Your task to perform on an android device: see creations saved in the google photos Image 0: 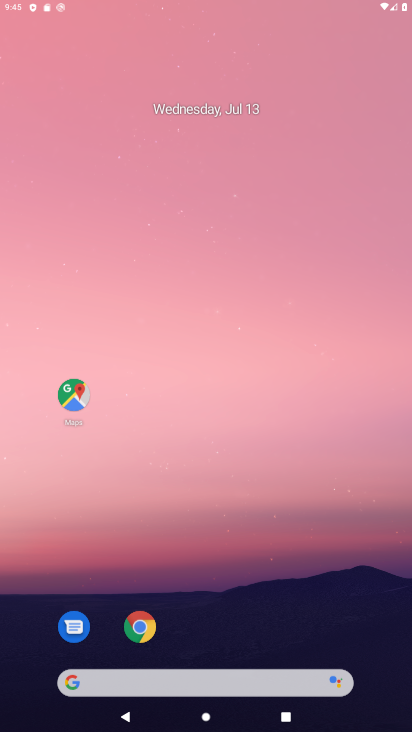
Step 0: press home button
Your task to perform on an android device: see creations saved in the google photos Image 1: 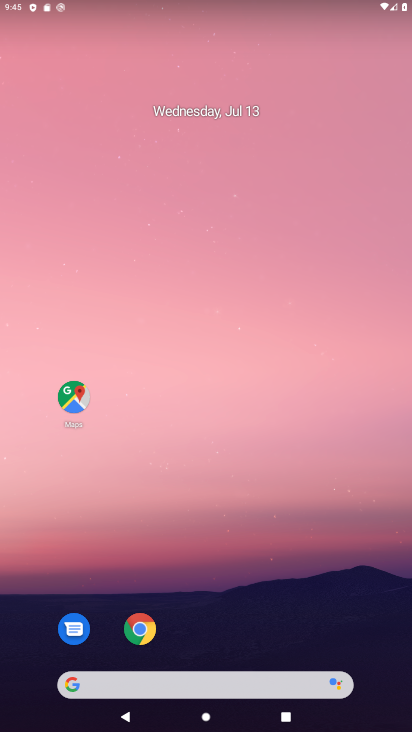
Step 1: drag from (202, 598) to (169, 18)
Your task to perform on an android device: see creations saved in the google photos Image 2: 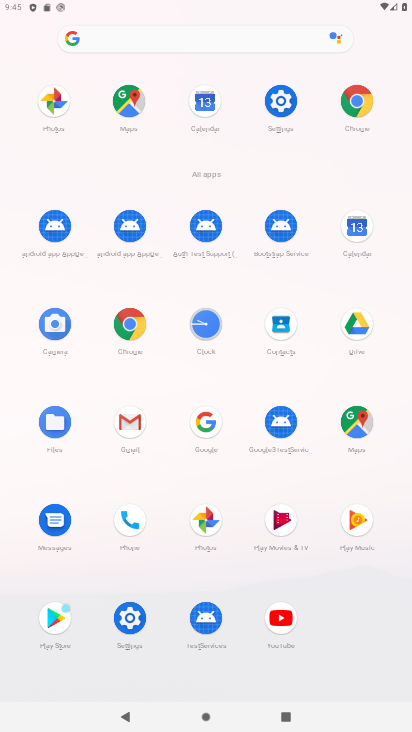
Step 2: click (205, 515)
Your task to perform on an android device: see creations saved in the google photos Image 3: 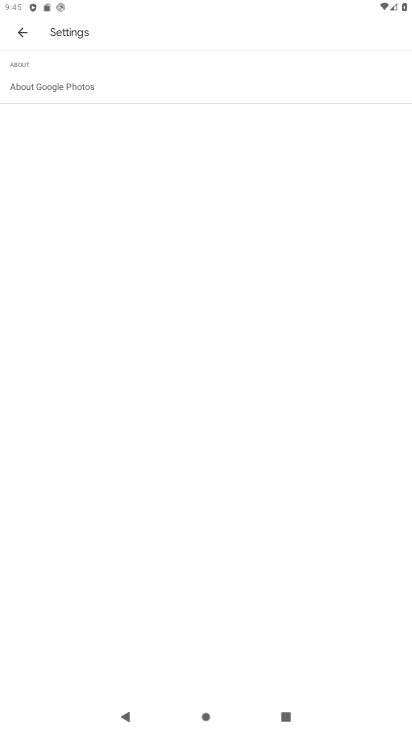
Step 3: click (22, 31)
Your task to perform on an android device: see creations saved in the google photos Image 4: 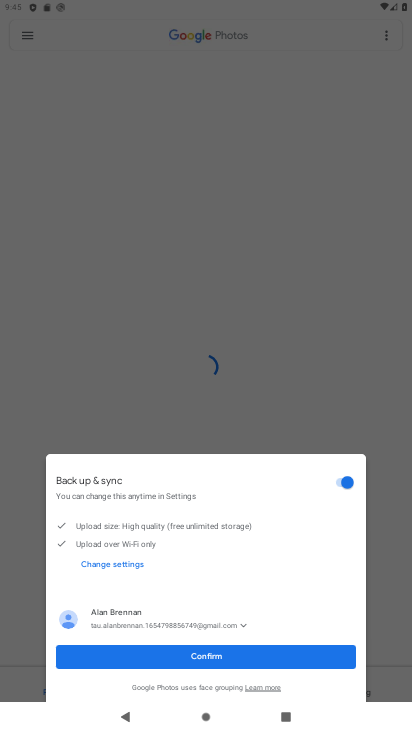
Step 4: click (218, 648)
Your task to perform on an android device: see creations saved in the google photos Image 5: 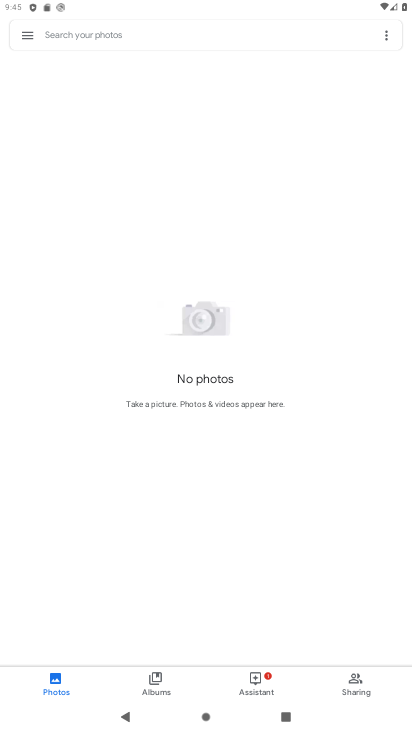
Step 5: click (80, 27)
Your task to perform on an android device: see creations saved in the google photos Image 6: 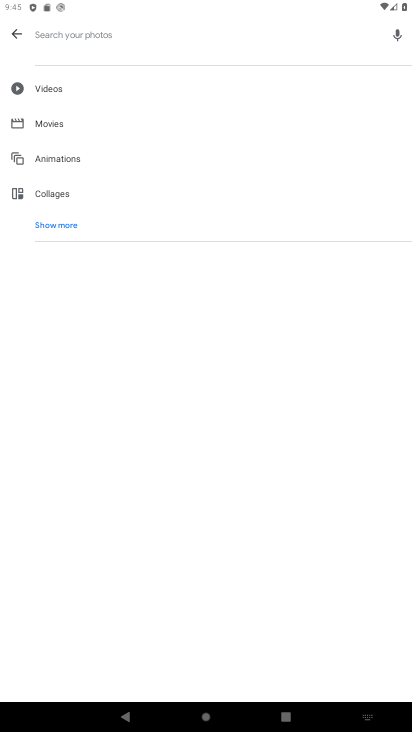
Step 6: click (67, 228)
Your task to perform on an android device: see creations saved in the google photos Image 7: 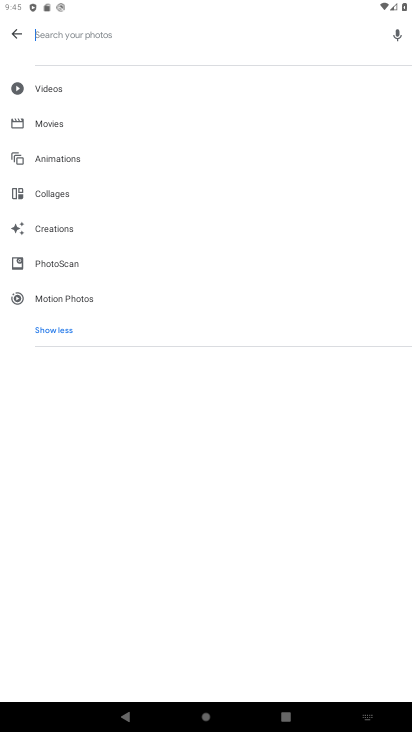
Step 7: click (63, 220)
Your task to perform on an android device: see creations saved in the google photos Image 8: 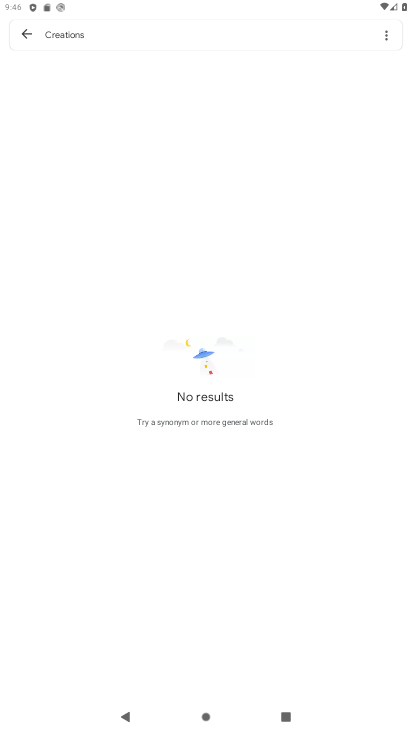
Step 8: task complete